Your task to perform on an android device: turn notification dots on Image 0: 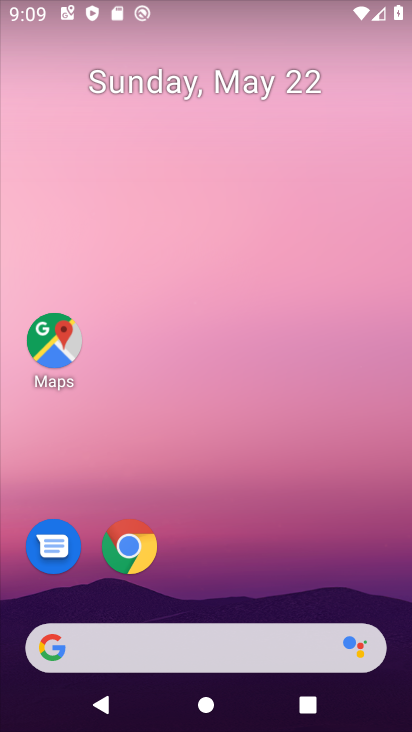
Step 0: drag from (278, 307) to (307, 80)
Your task to perform on an android device: turn notification dots on Image 1: 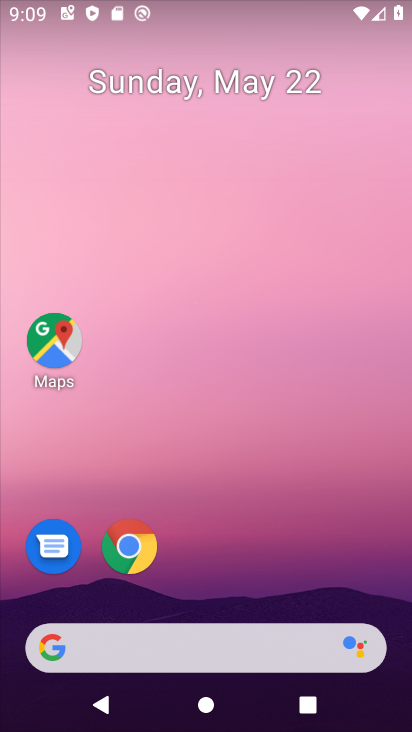
Step 1: drag from (229, 469) to (336, 112)
Your task to perform on an android device: turn notification dots on Image 2: 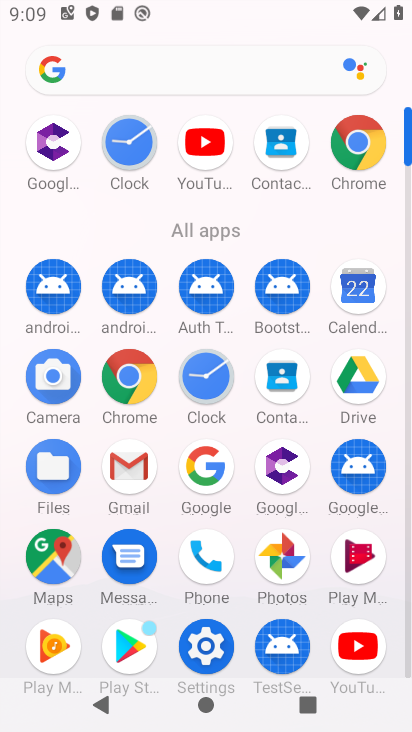
Step 2: click (199, 644)
Your task to perform on an android device: turn notification dots on Image 3: 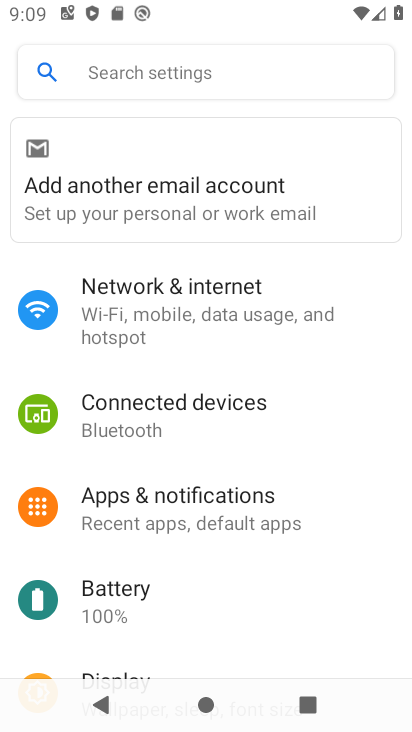
Step 3: click (171, 495)
Your task to perform on an android device: turn notification dots on Image 4: 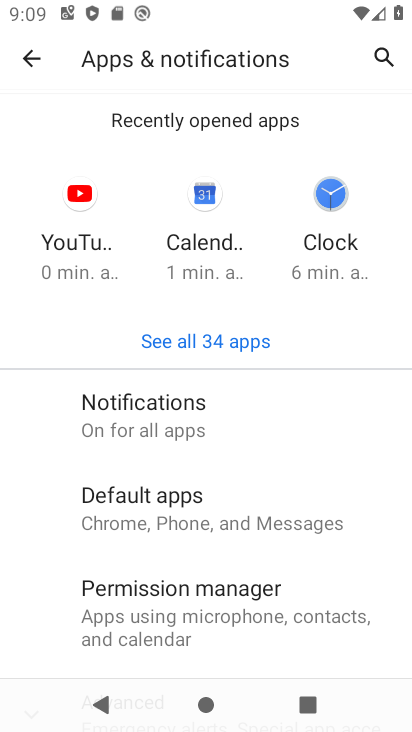
Step 4: click (198, 386)
Your task to perform on an android device: turn notification dots on Image 5: 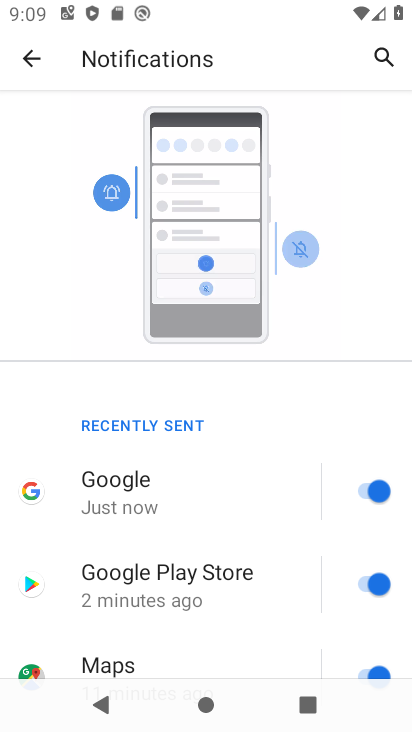
Step 5: drag from (180, 487) to (271, 112)
Your task to perform on an android device: turn notification dots on Image 6: 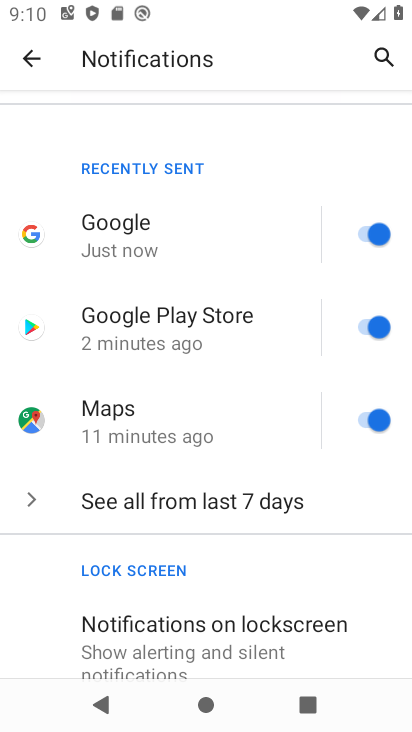
Step 6: drag from (175, 555) to (304, 62)
Your task to perform on an android device: turn notification dots on Image 7: 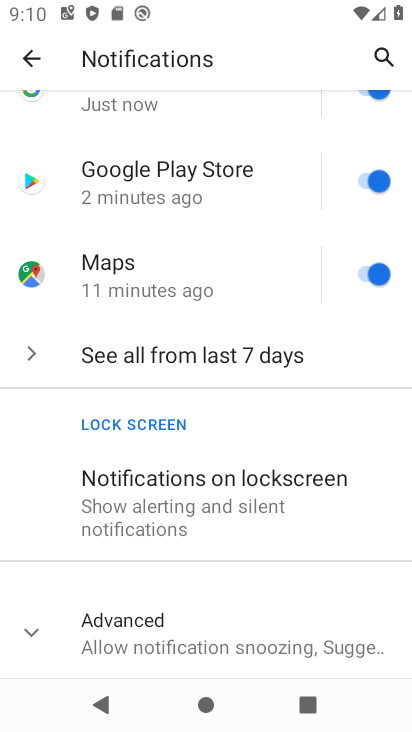
Step 7: click (207, 624)
Your task to perform on an android device: turn notification dots on Image 8: 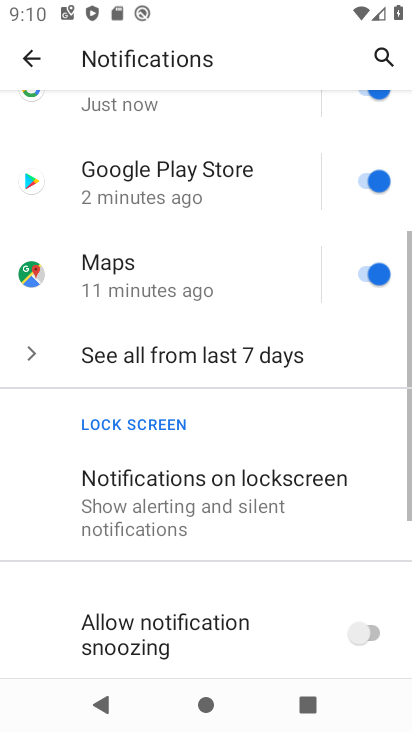
Step 8: task complete